Your task to perform on an android device: Open settings Image 0: 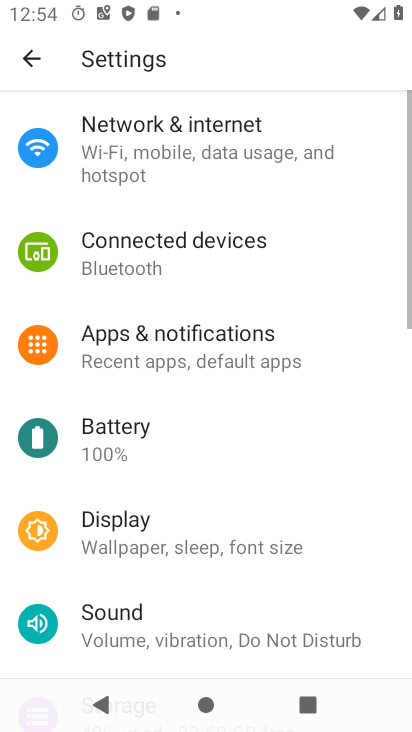
Step 0: press home button
Your task to perform on an android device: Open settings Image 1: 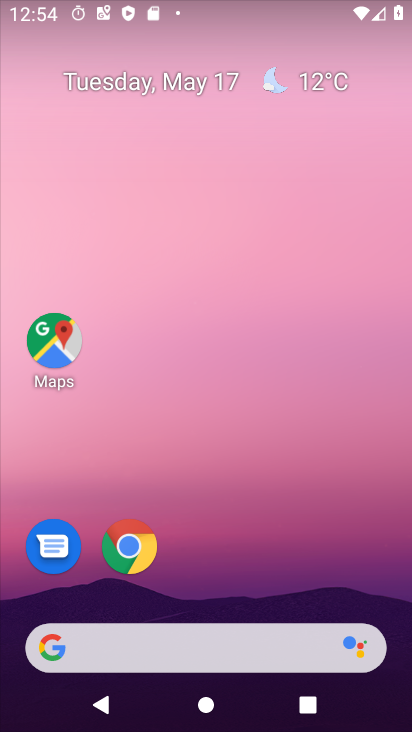
Step 1: drag from (153, 667) to (296, 50)
Your task to perform on an android device: Open settings Image 2: 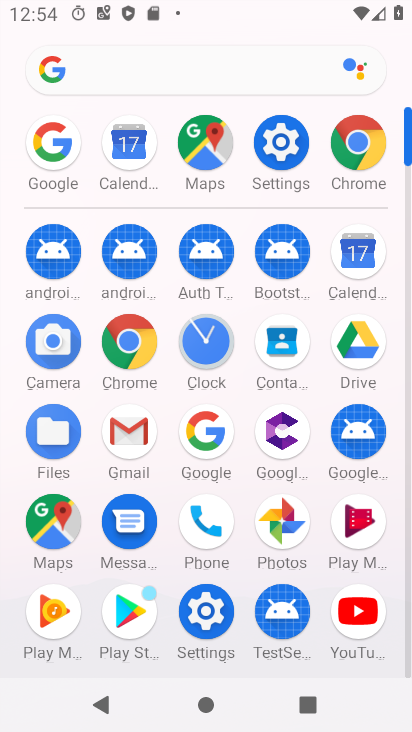
Step 2: click (284, 136)
Your task to perform on an android device: Open settings Image 3: 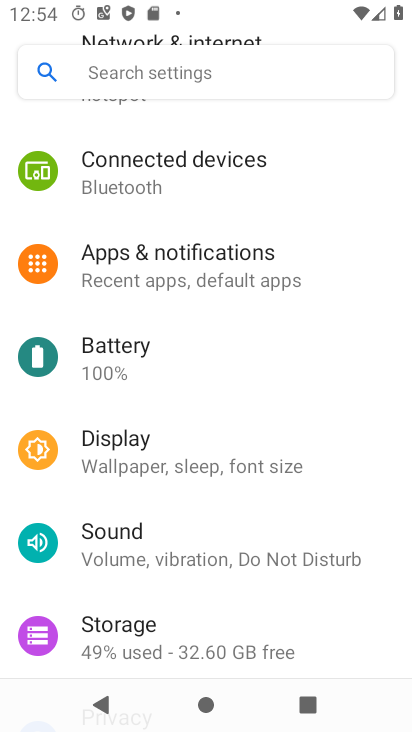
Step 3: task complete